Your task to perform on an android device: Do I have any events tomorrow? Image 0: 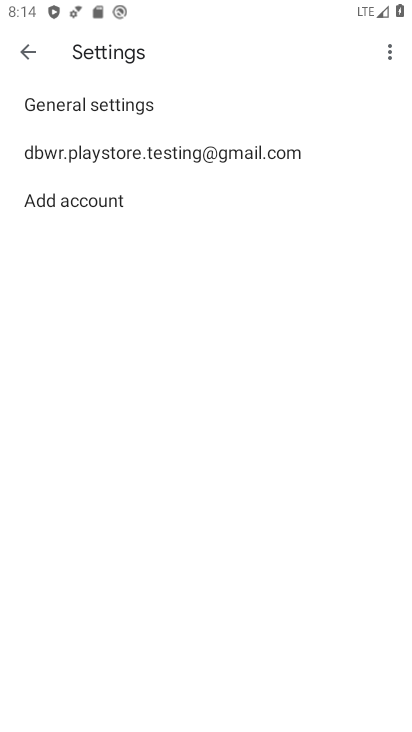
Step 0: press back button
Your task to perform on an android device: Do I have any events tomorrow? Image 1: 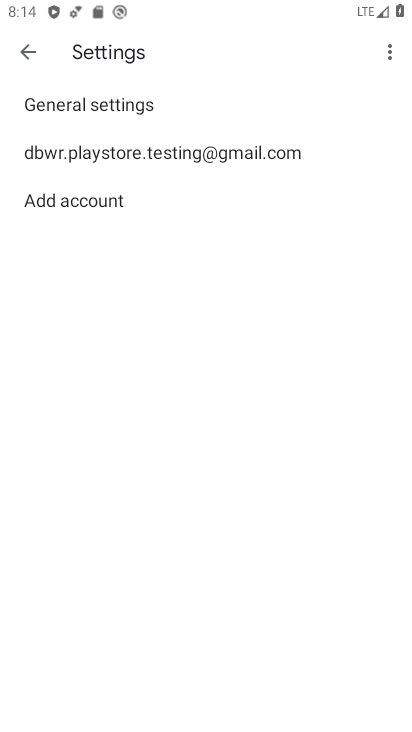
Step 1: press back button
Your task to perform on an android device: Do I have any events tomorrow? Image 2: 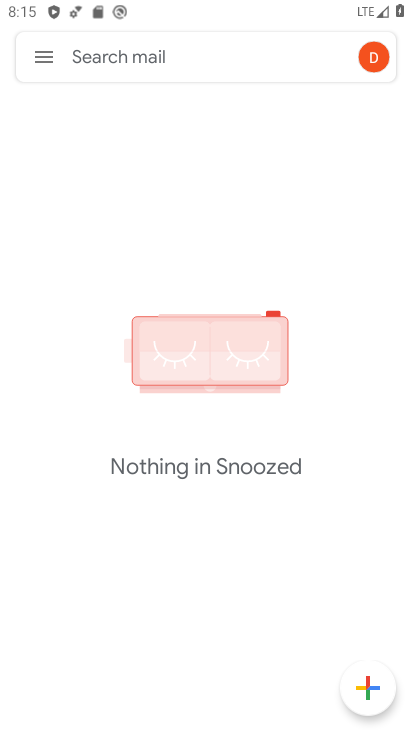
Step 2: press back button
Your task to perform on an android device: Do I have any events tomorrow? Image 3: 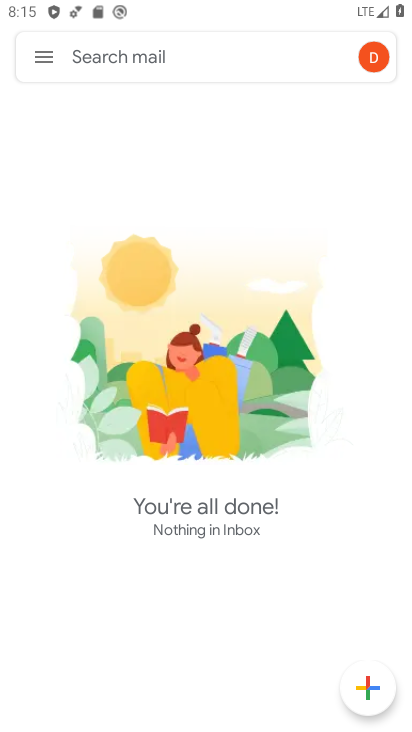
Step 3: press back button
Your task to perform on an android device: Do I have any events tomorrow? Image 4: 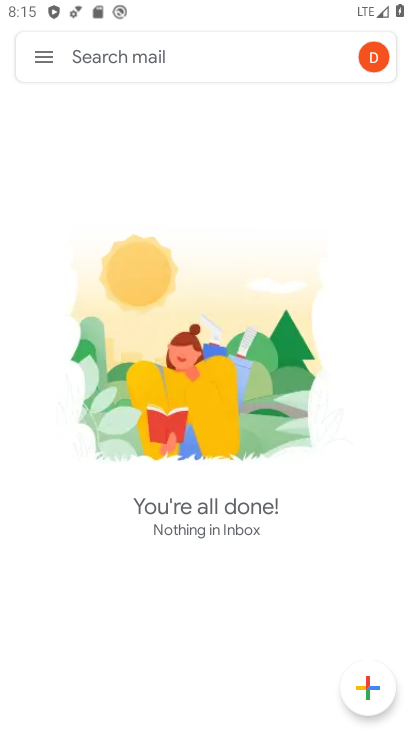
Step 4: press home button
Your task to perform on an android device: Do I have any events tomorrow? Image 5: 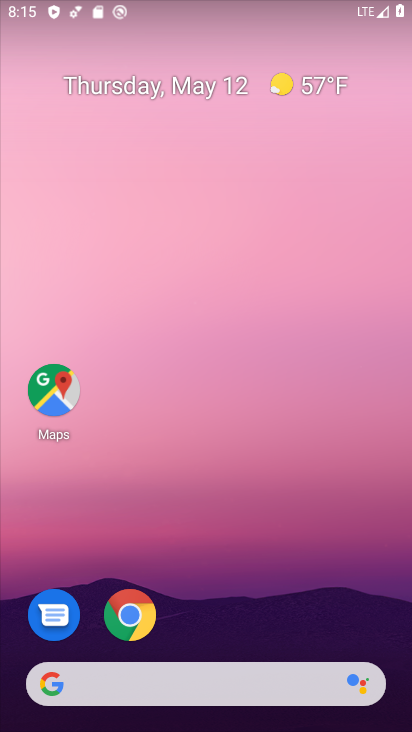
Step 5: drag from (185, 617) to (170, 7)
Your task to perform on an android device: Do I have any events tomorrow? Image 6: 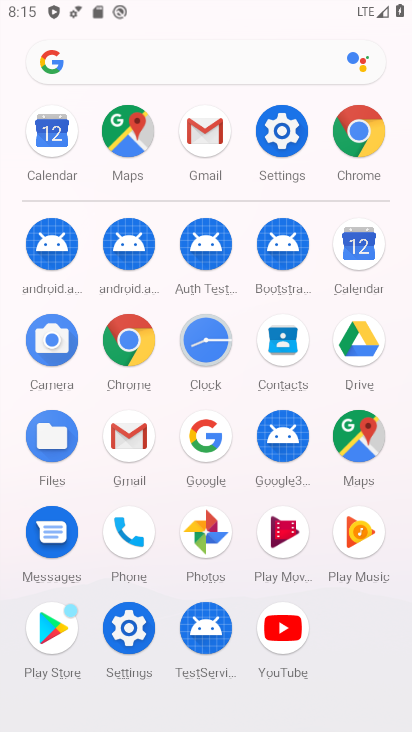
Step 6: click (355, 240)
Your task to perform on an android device: Do I have any events tomorrow? Image 7: 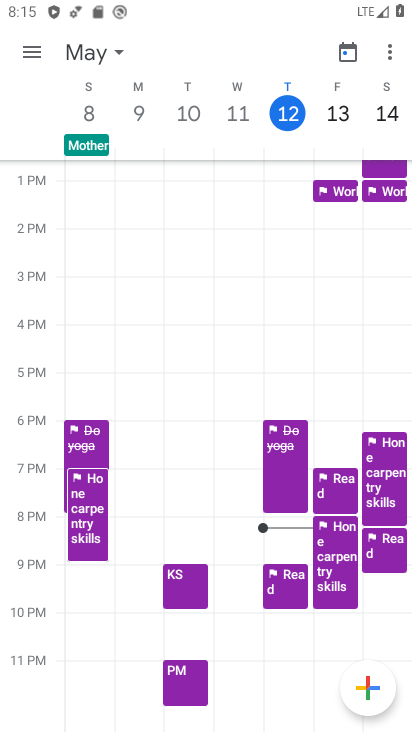
Step 7: click (344, 52)
Your task to perform on an android device: Do I have any events tomorrow? Image 8: 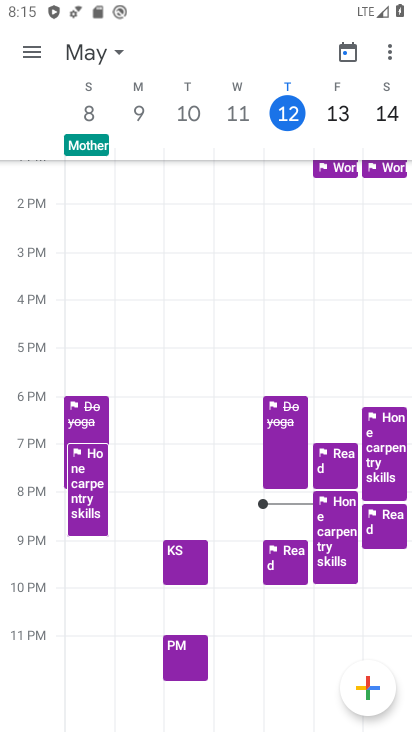
Step 8: click (337, 103)
Your task to perform on an android device: Do I have any events tomorrow? Image 9: 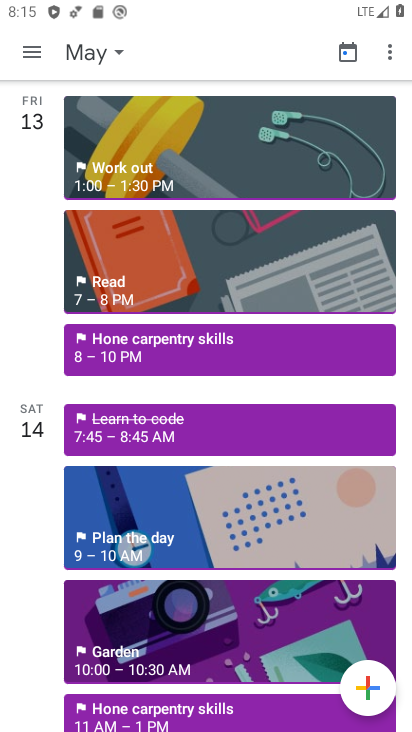
Step 9: click (32, 47)
Your task to perform on an android device: Do I have any events tomorrow? Image 10: 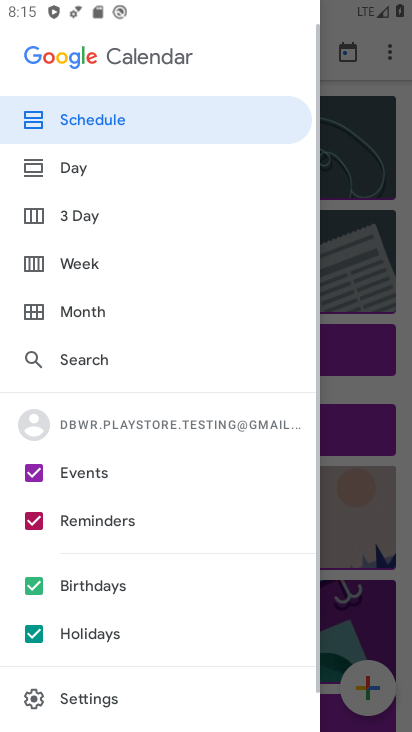
Step 10: click (72, 168)
Your task to perform on an android device: Do I have any events tomorrow? Image 11: 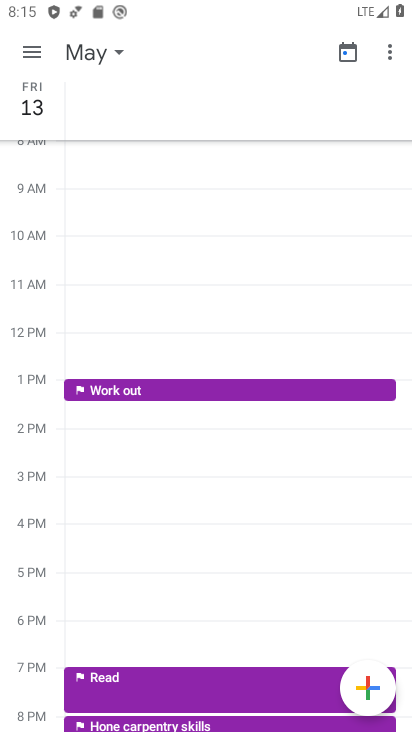
Step 11: task complete